Your task to perform on an android device: Open sound settings Image 0: 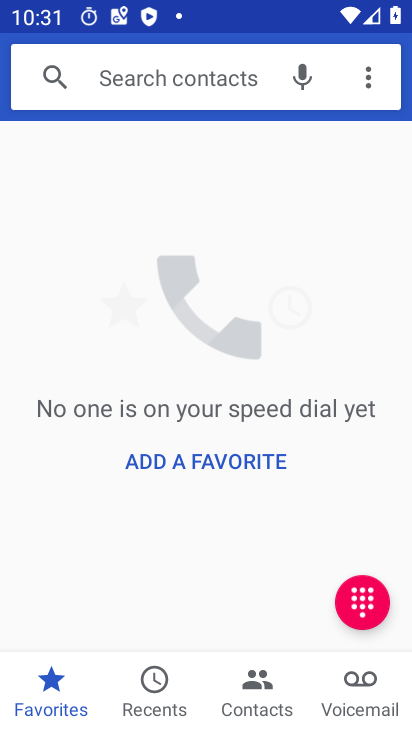
Step 0: press home button
Your task to perform on an android device: Open sound settings Image 1: 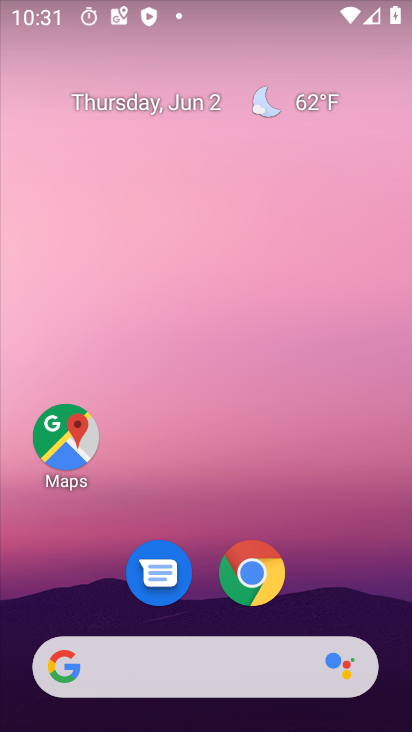
Step 1: drag from (8, 674) to (3, 238)
Your task to perform on an android device: Open sound settings Image 2: 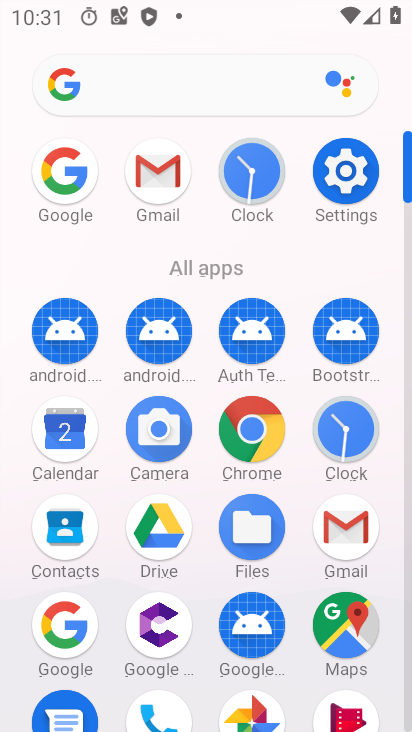
Step 2: click (328, 176)
Your task to perform on an android device: Open sound settings Image 3: 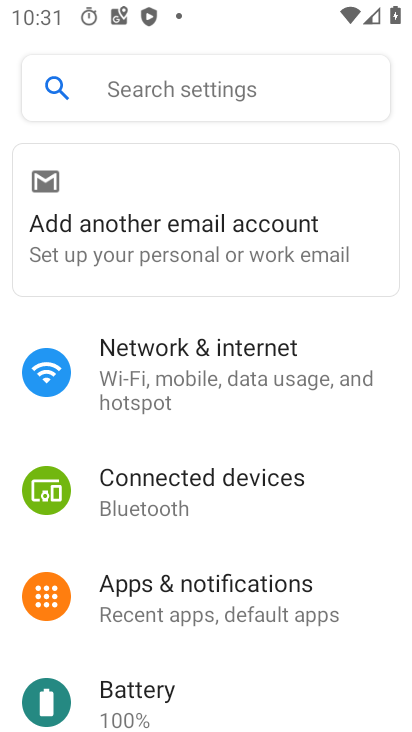
Step 3: drag from (95, 475) to (99, 237)
Your task to perform on an android device: Open sound settings Image 4: 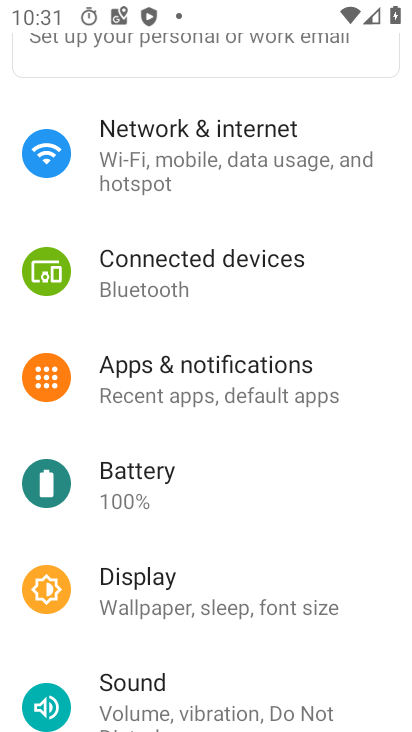
Step 4: drag from (188, 474) to (240, 205)
Your task to perform on an android device: Open sound settings Image 5: 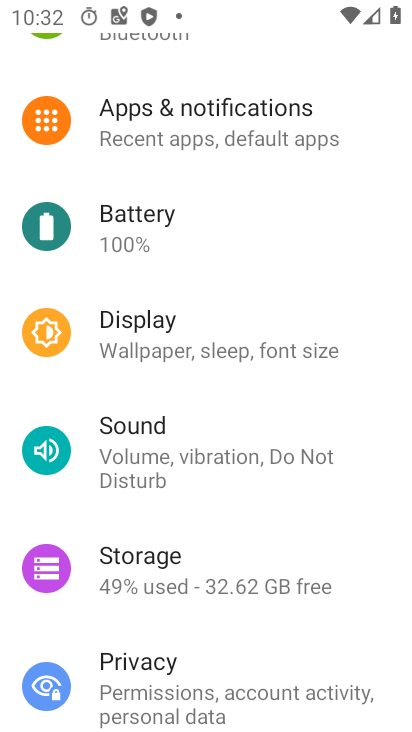
Step 5: click (127, 437)
Your task to perform on an android device: Open sound settings Image 6: 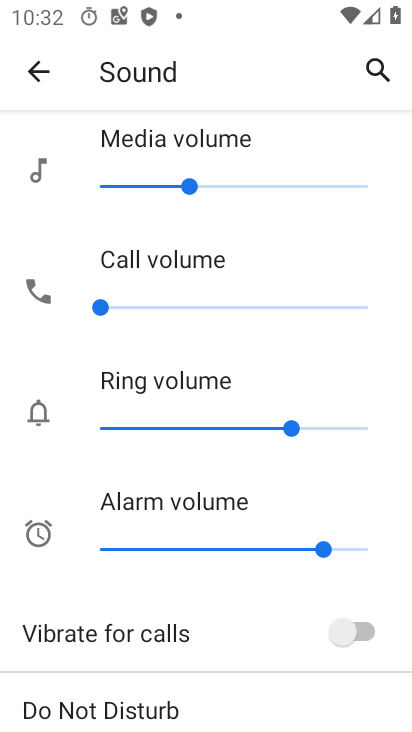
Step 6: task complete